Your task to perform on an android device: find snoozed emails in the gmail app Image 0: 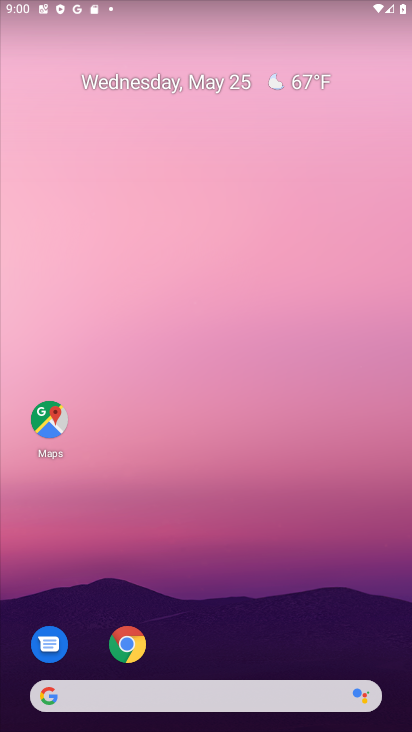
Step 0: press home button
Your task to perform on an android device: find snoozed emails in the gmail app Image 1: 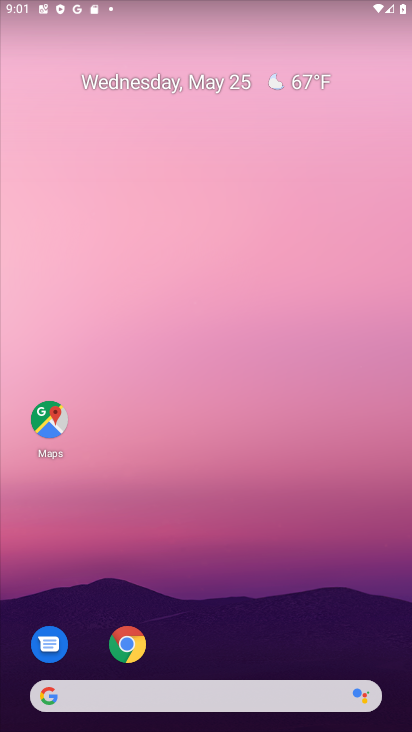
Step 1: drag from (218, 657) to (237, 4)
Your task to perform on an android device: find snoozed emails in the gmail app Image 2: 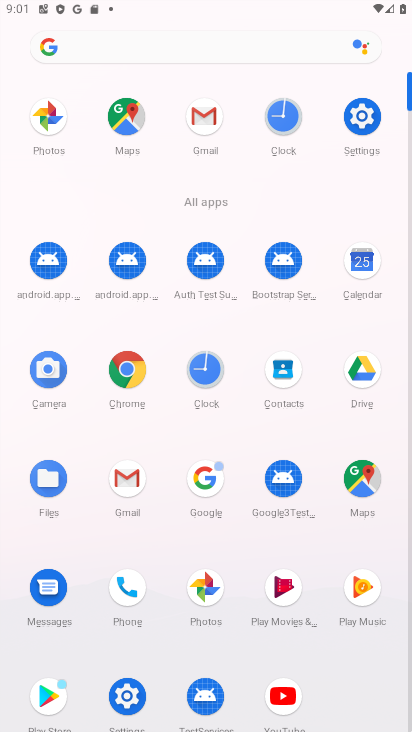
Step 2: click (203, 110)
Your task to perform on an android device: find snoozed emails in the gmail app Image 3: 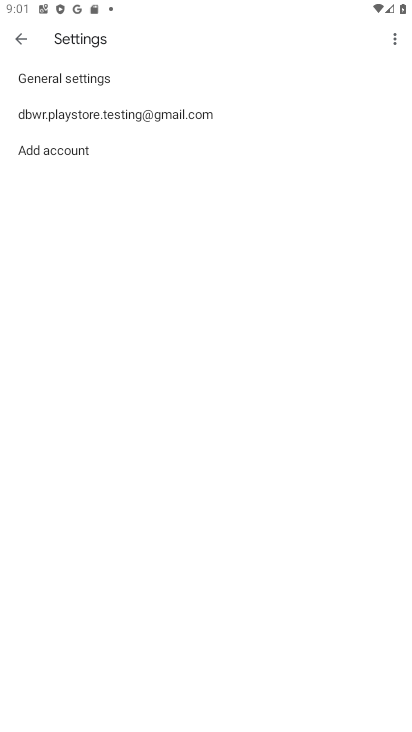
Step 3: click (21, 37)
Your task to perform on an android device: find snoozed emails in the gmail app Image 4: 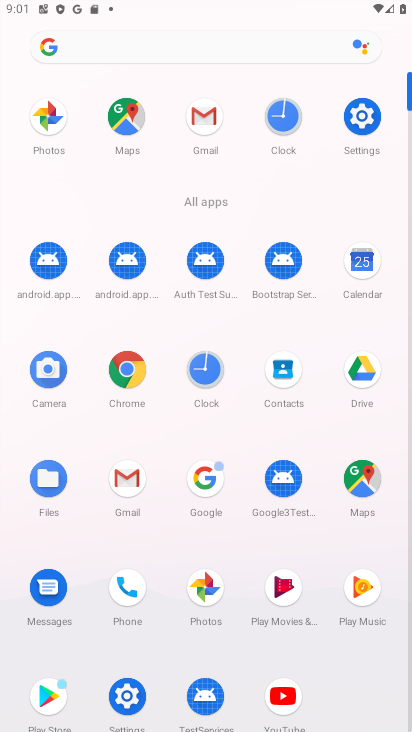
Step 4: click (207, 118)
Your task to perform on an android device: find snoozed emails in the gmail app Image 5: 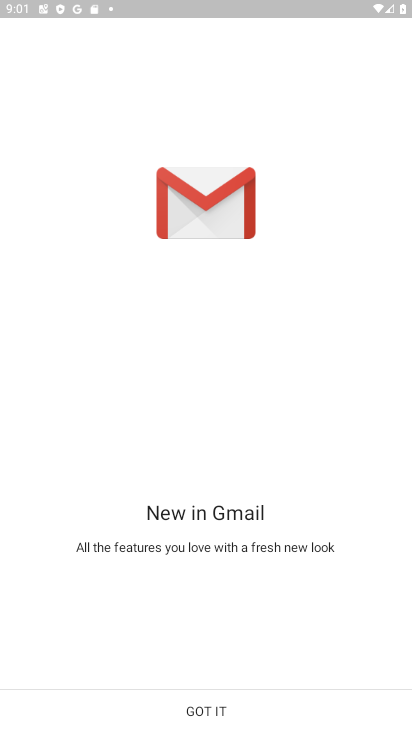
Step 5: click (229, 715)
Your task to perform on an android device: find snoozed emails in the gmail app Image 6: 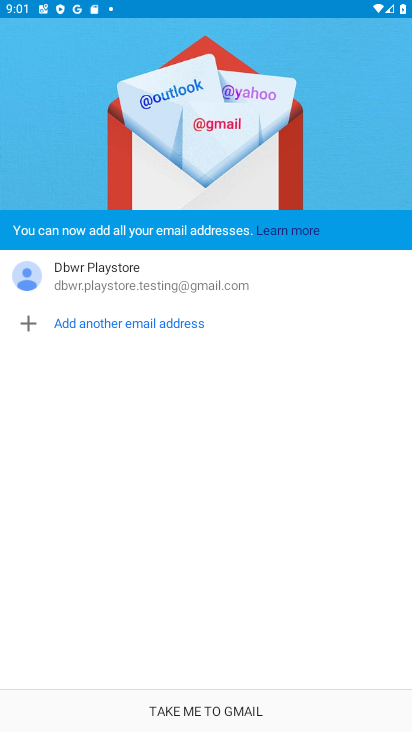
Step 6: click (229, 712)
Your task to perform on an android device: find snoozed emails in the gmail app Image 7: 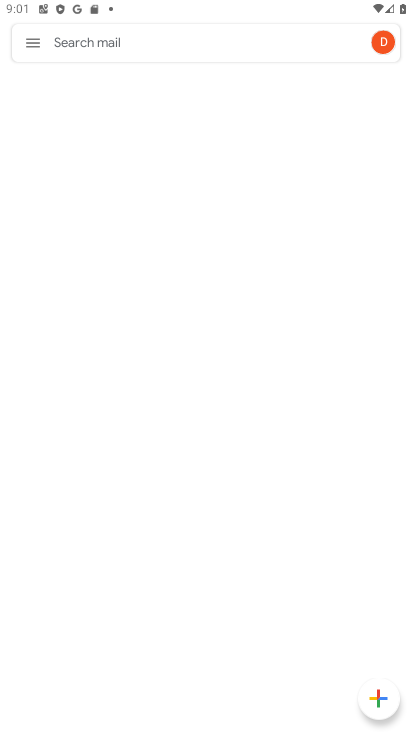
Step 7: click (24, 42)
Your task to perform on an android device: find snoozed emails in the gmail app Image 8: 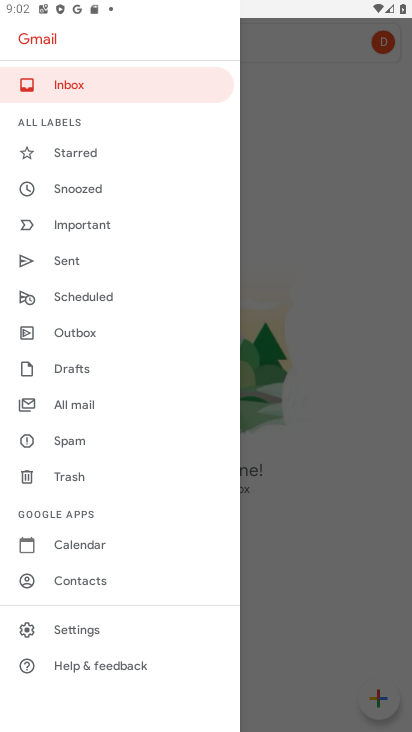
Step 8: click (91, 187)
Your task to perform on an android device: find snoozed emails in the gmail app Image 9: 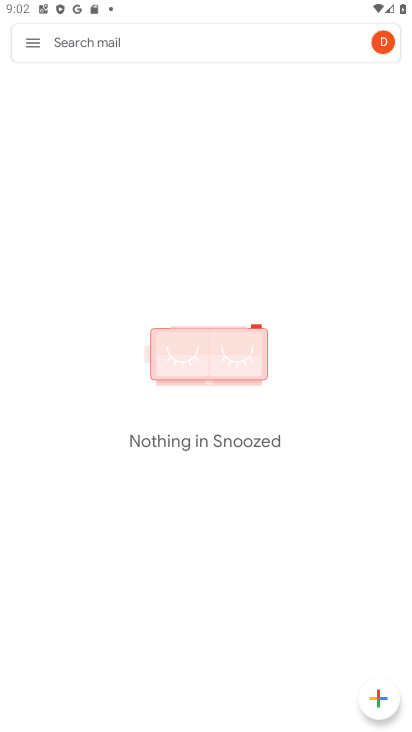
Step 9: task complete